Your task to perform on an android device: Toggle the flashlight Image 0: 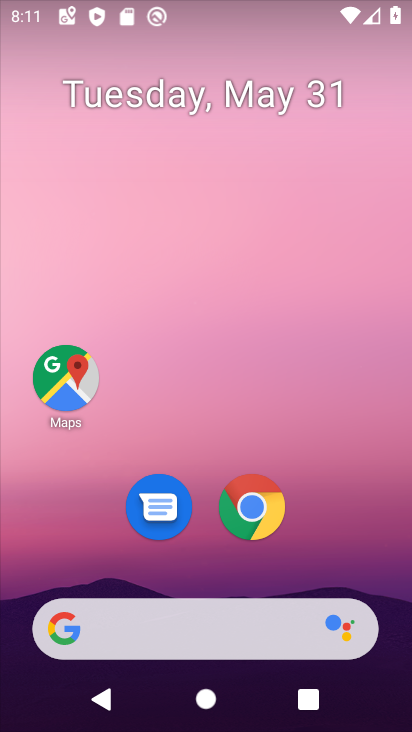
Step 0: drag from (330, 524) to (244, 152)
Your task to perform on an android device: Toggle the flashlight Image 1: 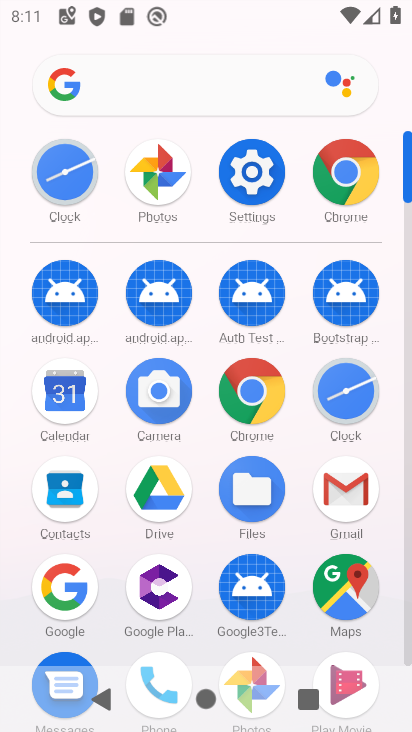
Step 1: click (238, 164)
Your task to perform on an android device: Toggle the flashlight Image 2: 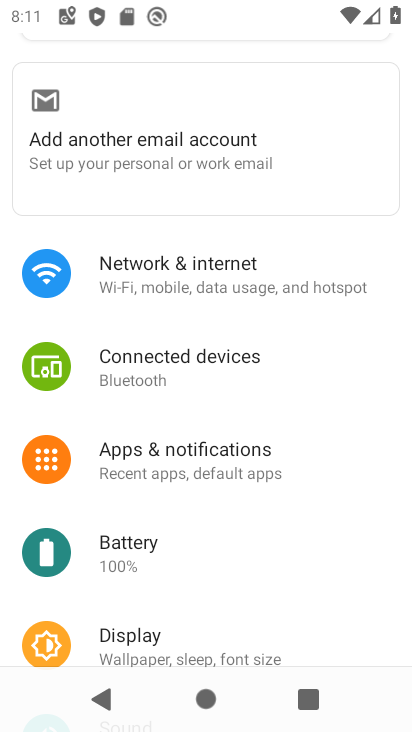
Step 2: drag from (227, 555) to (241, 208)
Your task to perform on an android device: Toggle the flashlight Image 3: 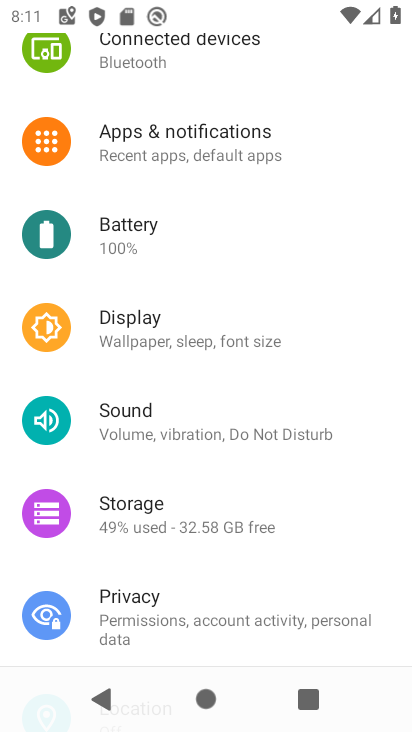
Step 3: click (99, 332)
Your task to perform on an android device: Toggle the flashlight Image 4: 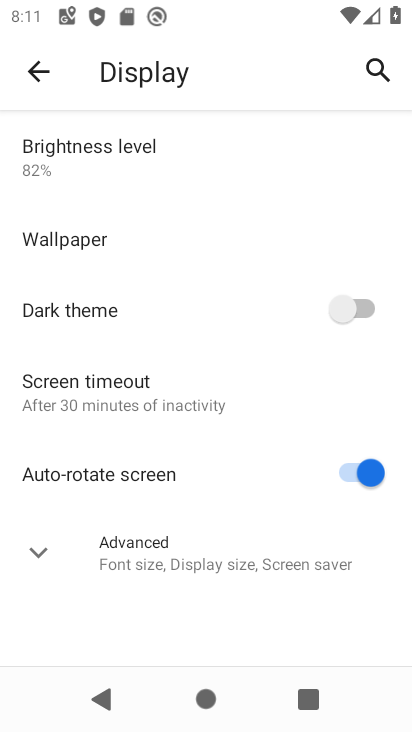
Step 4: click (94, 557)
Your task to perform on an android device: Toggle the flashlight Image 5: 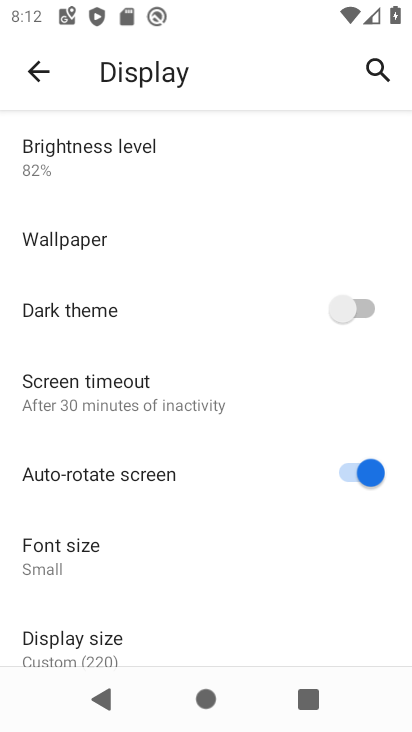
Step 5: click (217, 396)
Your task to perform on an android device: Toggle the flashlight Image 6: 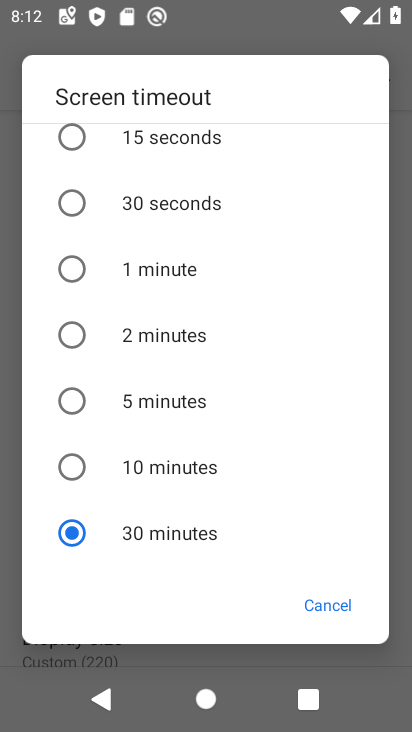
Step 6: task complete